Your task to perform on an android device: change text size in settings app Image 0: 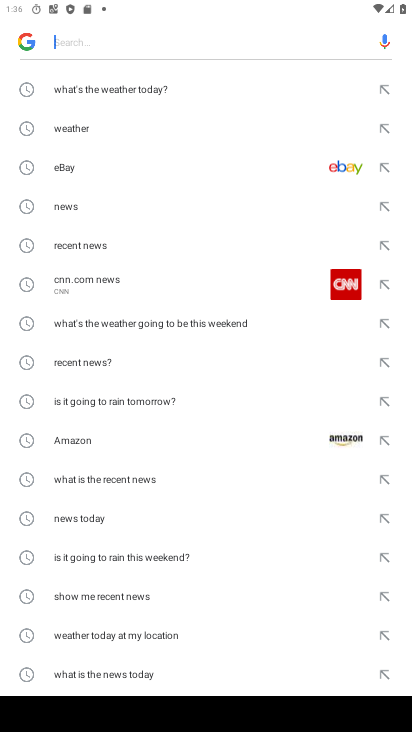
Step 0: press home button
Your task to perform on an android device: change text size in settings app Image 1: 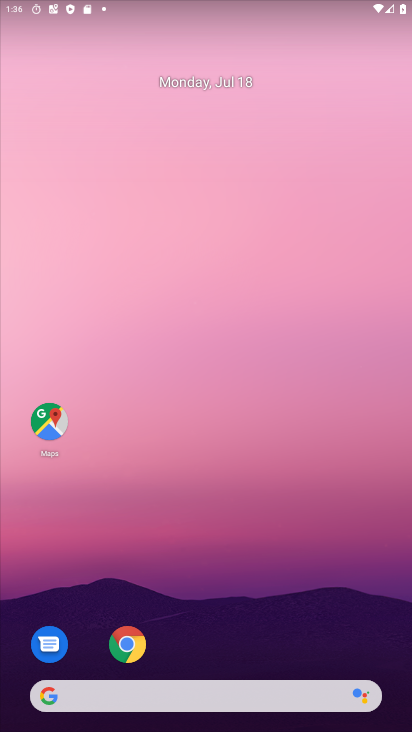
Step 1: drag from (279, 665) to (373, 0)
Your task to perform on an android device: change text size in settings app Image 2: 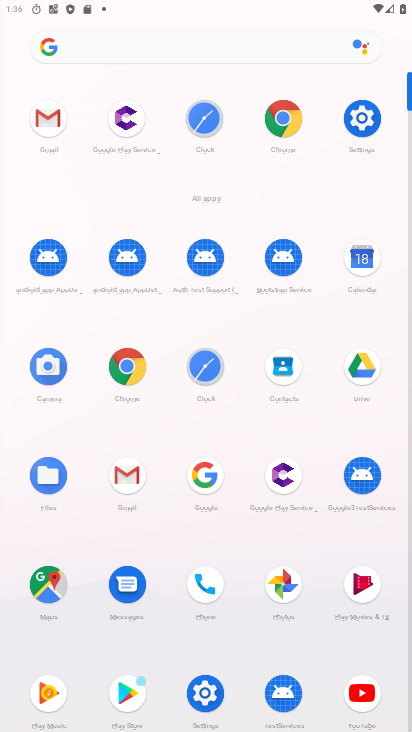
Step 2: click (205, 693)
Your task to perform on an android device: change text size in settings app Image 3: 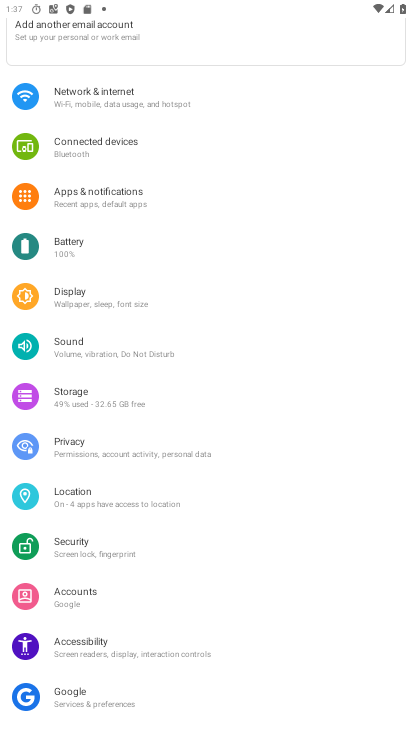
Step 3: click (134, 288)
Your task to perform on an android device: change text size in settings app Image 4: 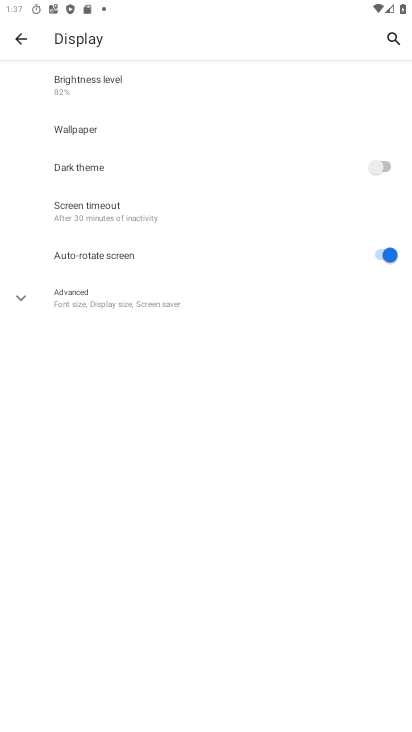
Step 4: click (88, 304)
Your task to perform on an android device: change text size in settings app Image 5: 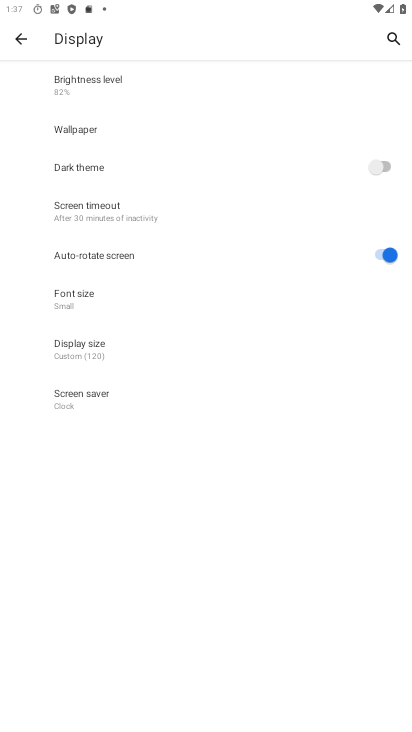
Step 5: click (95, 301)
Your task to perform on an android device: change text size in settings app Image 6: 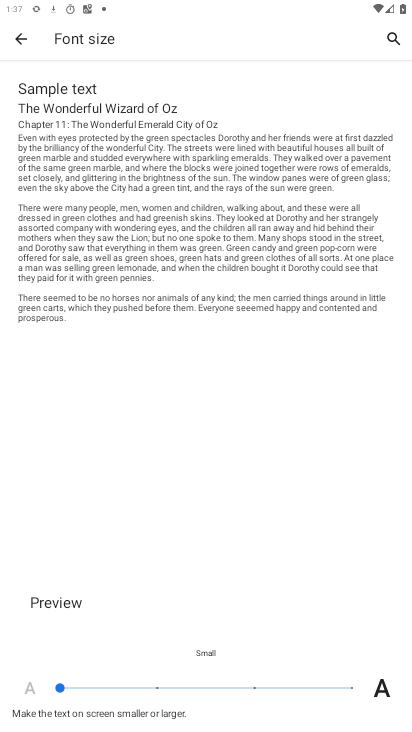
Step 6: click (258, 689)
Your task to perform on an android device: change text size in settings app Image 7: 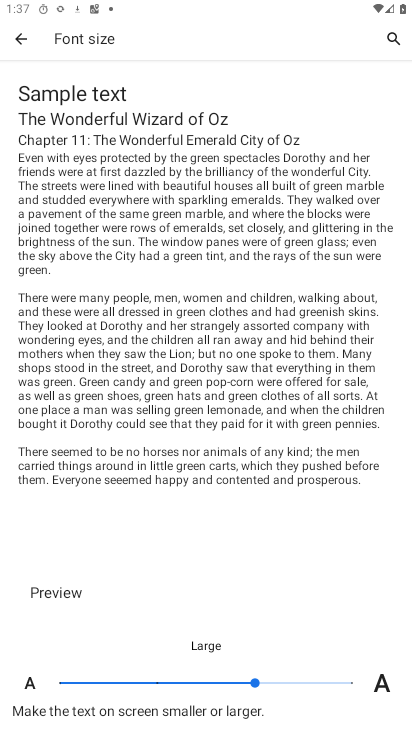
Step 7: task complete